Your task to perform on an android device: Open settings on Google Maps Image 0: 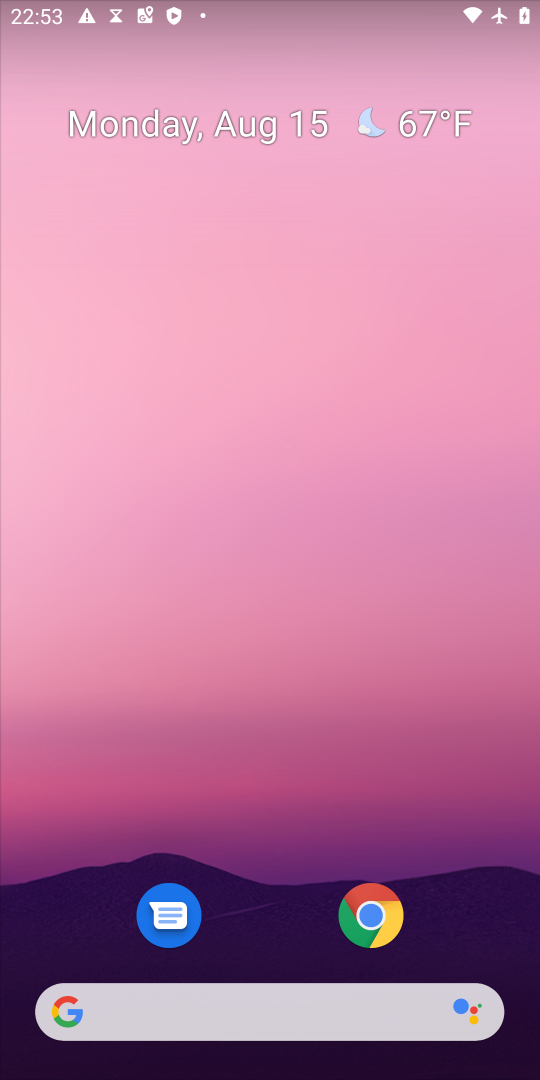
Step 0: drag from (305, 886) to (307, 346)
Your task to perform on an android device: Open settings on Google Maps Image 1: 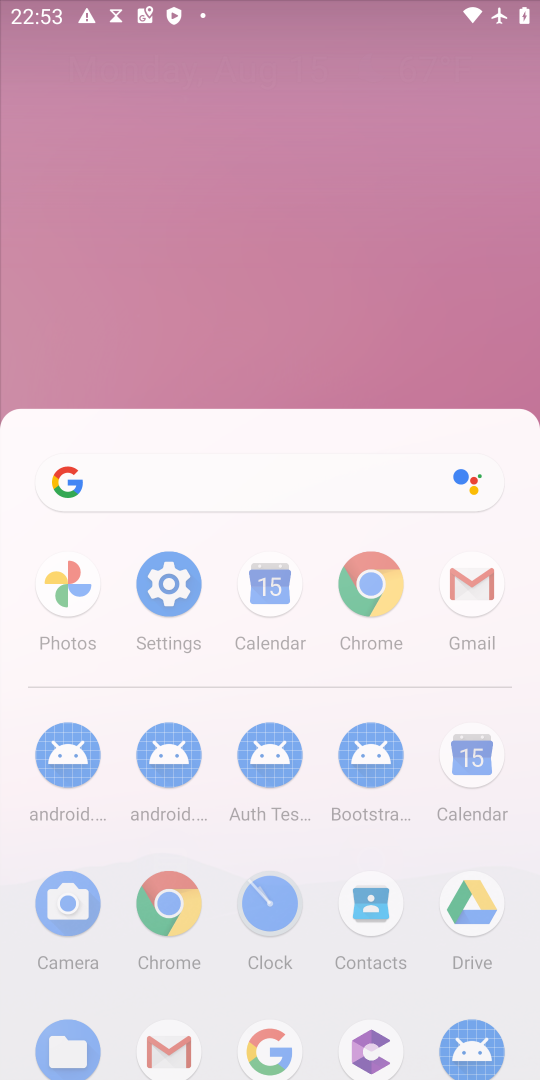
Step 1: drag from (264, 940) to (397, 116)
Your task to perform on an android device: Open settings on Google Maps Image 2: 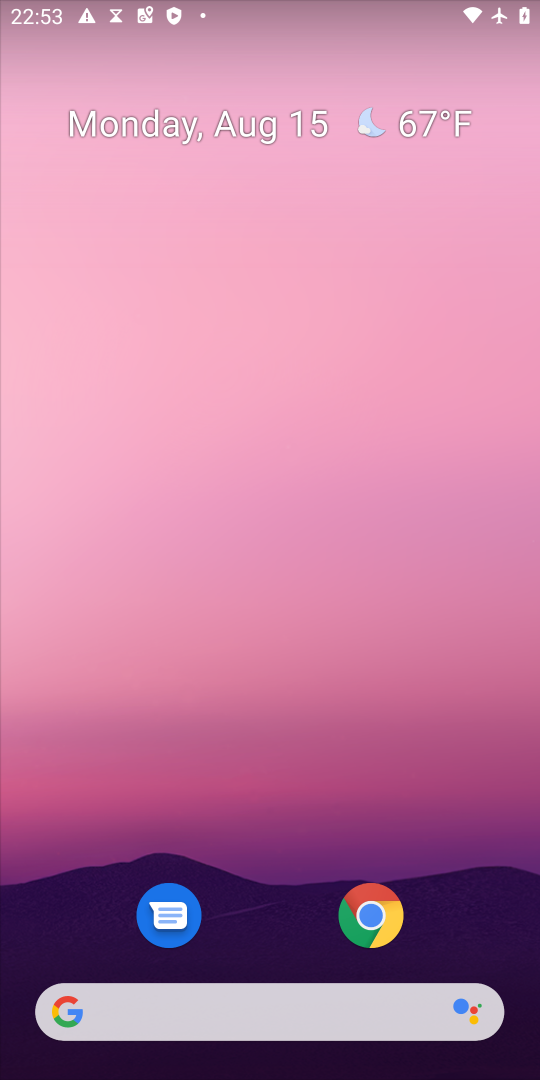
Step 2: drag from (292, 892) to (417, 66)
Your task to perform on an android device: Open settings on Google Maps Image 3: 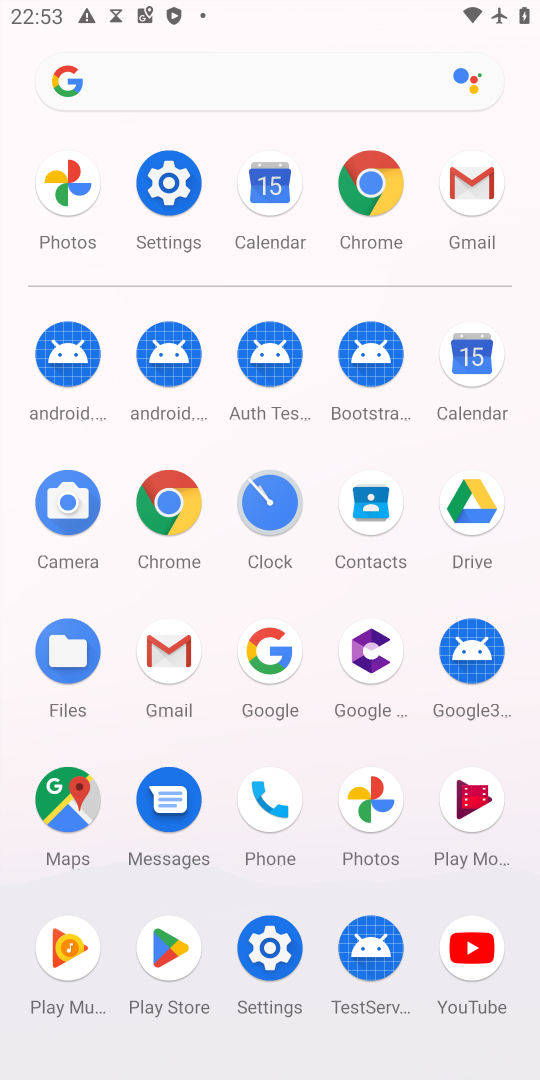
Step 3: click (82, 797)
Your task to perform on an android device: Open settings on Google Maps Image 4: 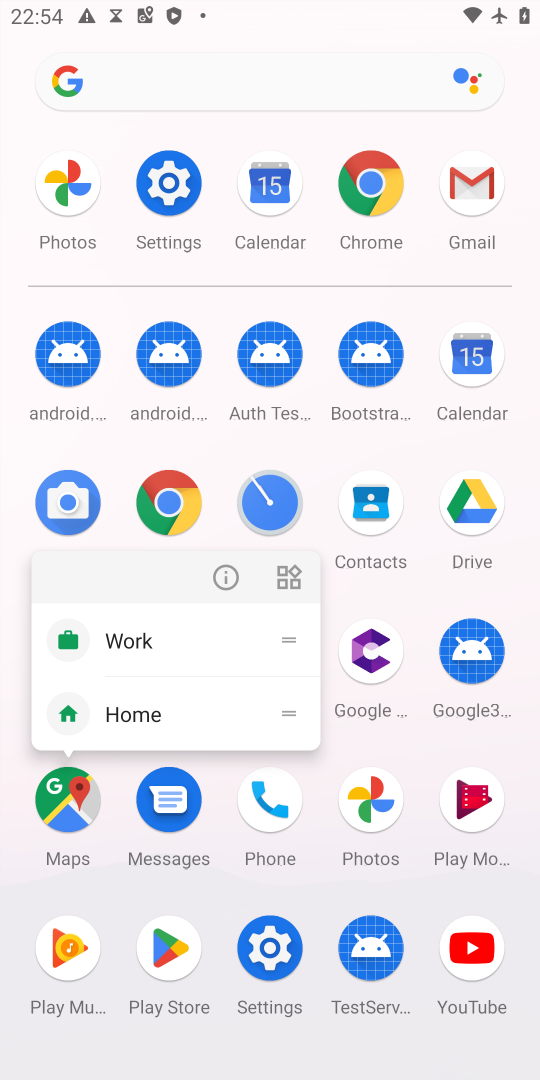
Step 4: click (75, 820)
Your task to perform on an android device: Open settings on Google Maps Image 5: 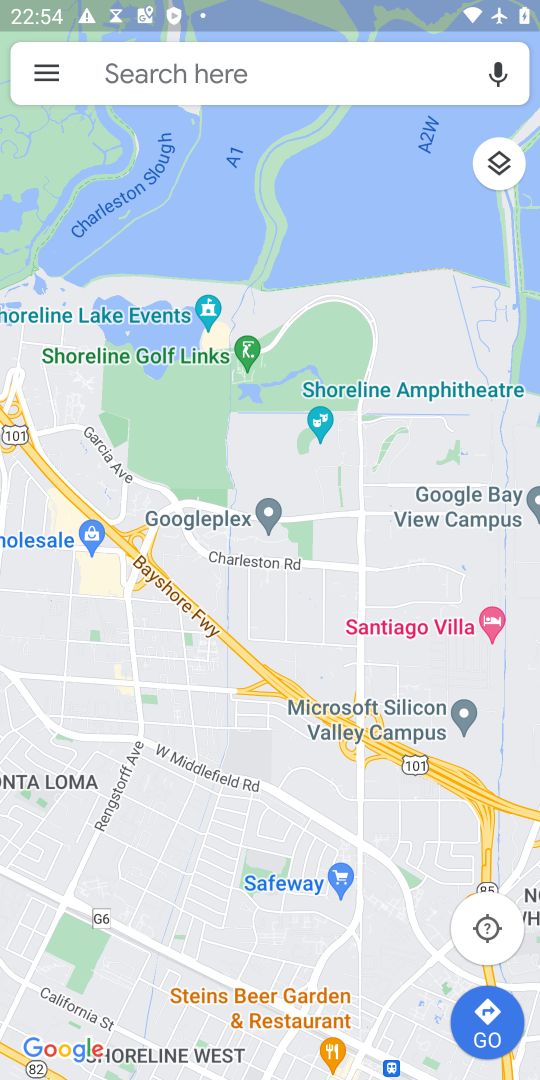
Step 5: click (40, 81)
Your task to perform on an android device: Open settings on Google Maps Image 6: 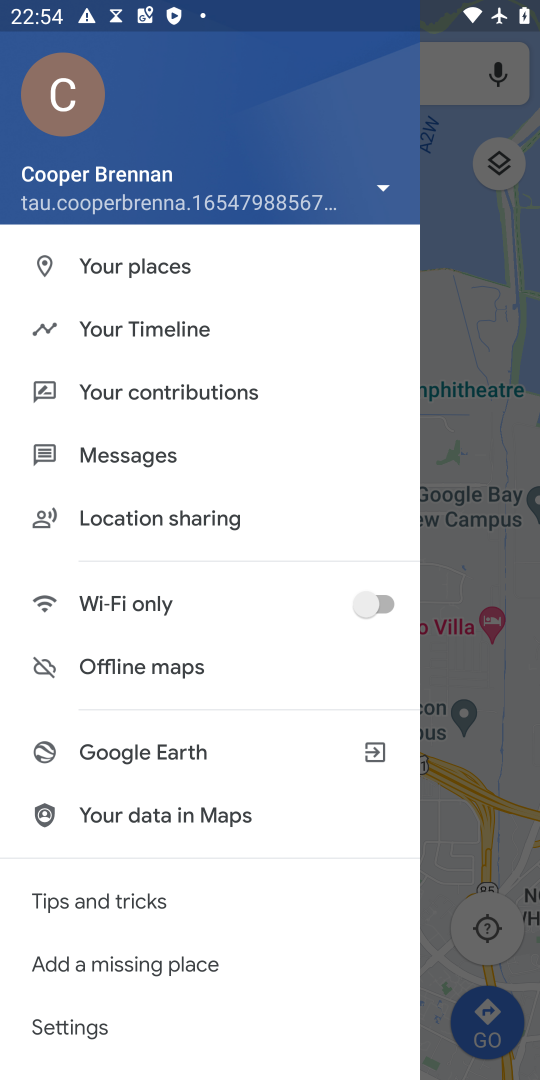
Step 6: click (57, 1028)
Your task to perform on an android device: Open settings on Google Maps Image 7: 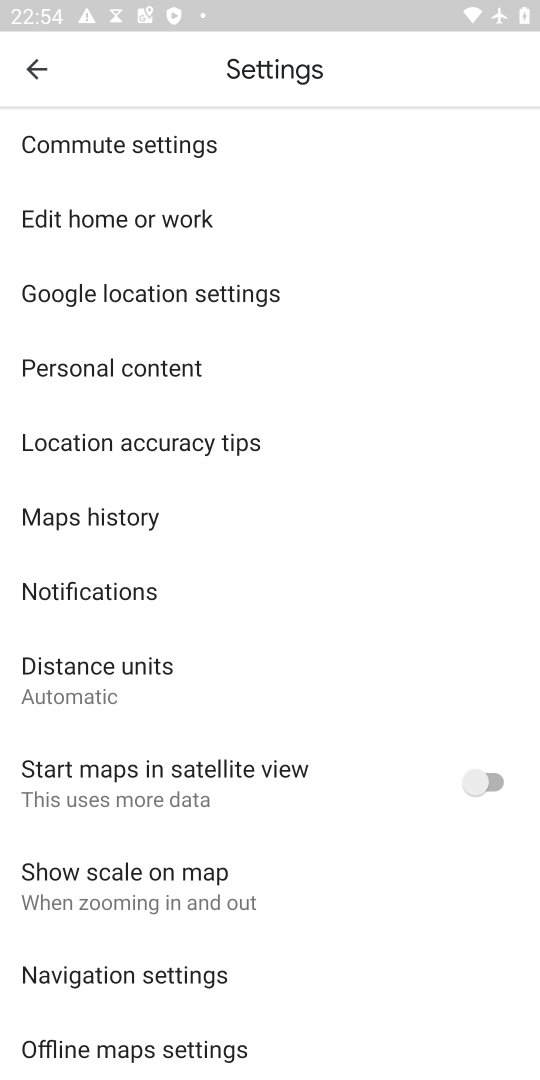
Step 7: task complete